Your task to perform on an android device: stop showing notifications on the lock screen Image 0: 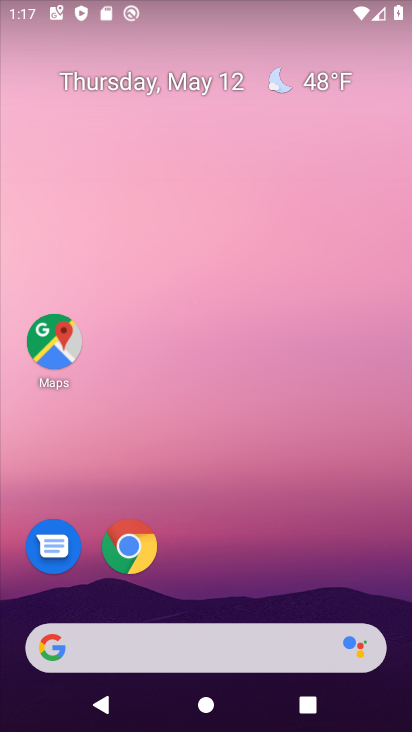
Step 0: drag from (213, 658) to (409, 104)
Your task to perform on an android device: stop showing notifications on the lock screen Image 1: 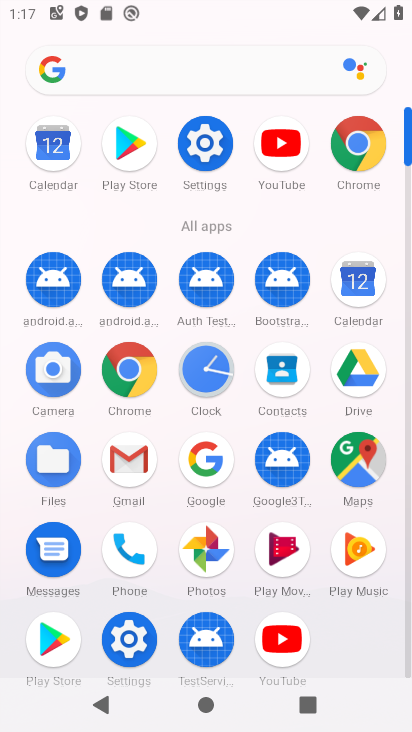
Step 1: click (197, 158)
Your task to perform on an android device: stop showing notifications on the lock screen Image 2: 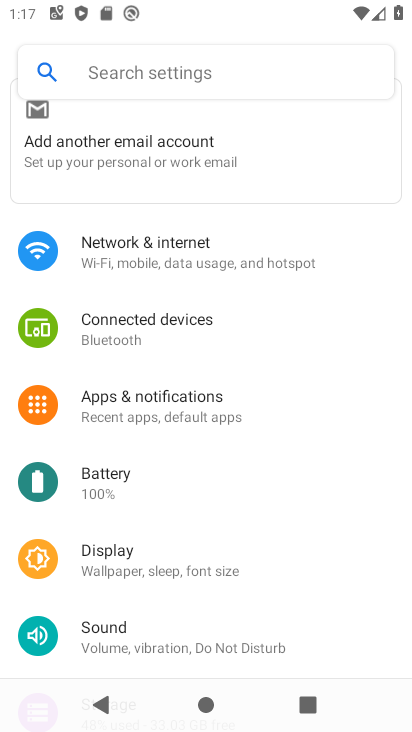
Step 2: click (188, 407)
Your task to perform on an android device: stop showing notifications on the lock screen Image 3: 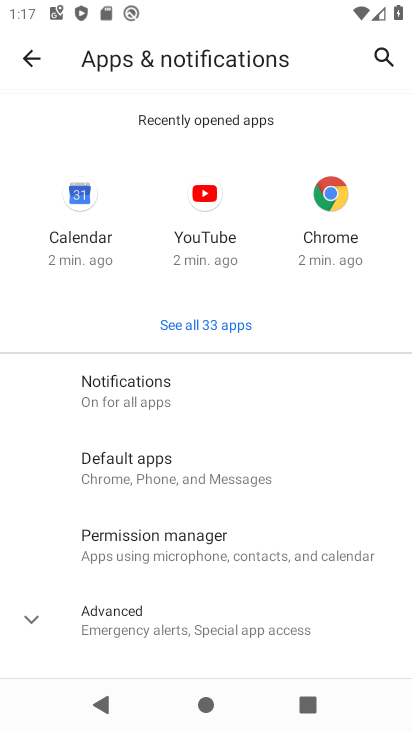
Step 3: click (149, 385)
Your task to perform on an android device: stop showing notifications on the lock screen Image 4: 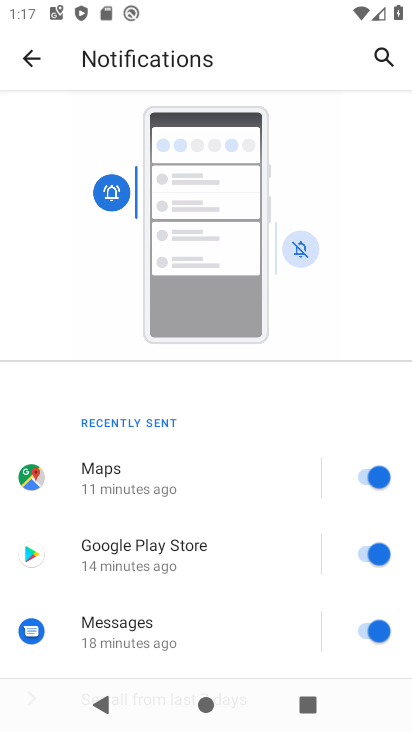
Step 4: drag from (207, 608) to (278, 230)
Your task to perform on an android device: stop showing notifications on the lock screen Image 5: 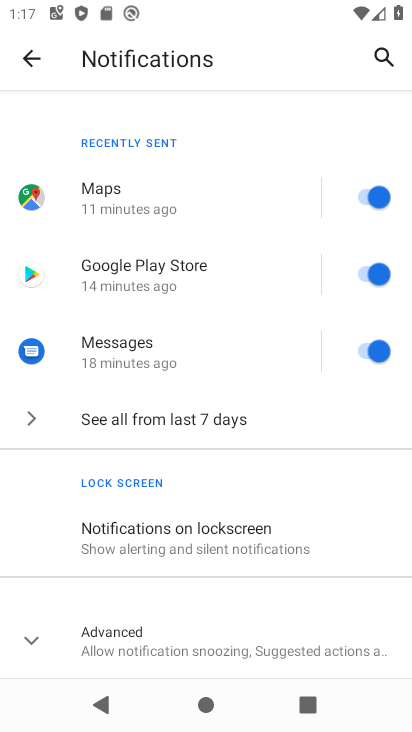
Step 5: click (227, 535)
Your task to perform on an android device: stop showing notifications on the lock screen Image 6: 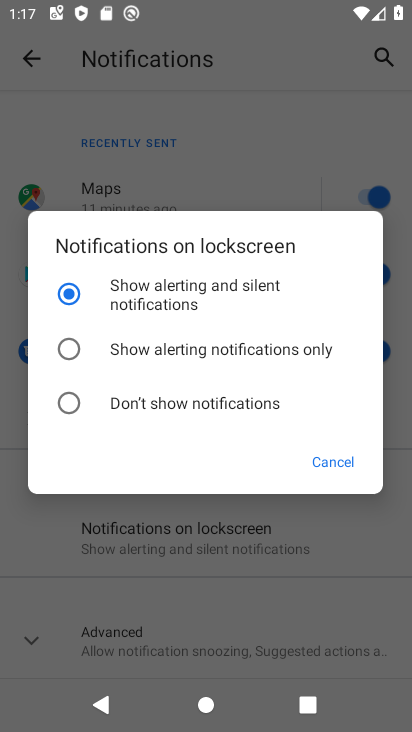
Step 6: click (66, 401)
Your task to perform on an android device: stop showing notifications on the lock screen Image 7: 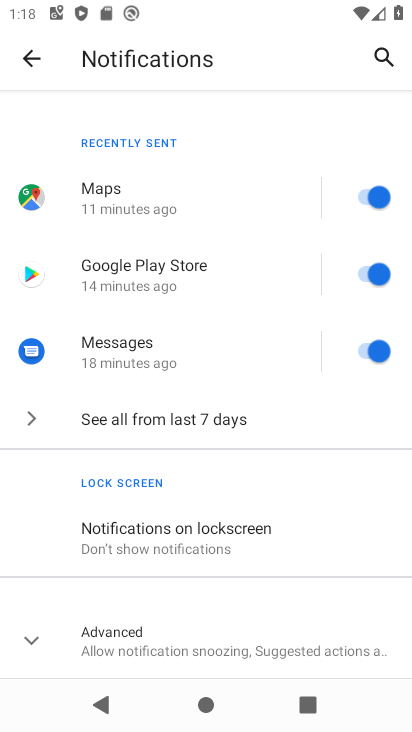
Step 7: task complete